Your task to perform on an android device: Open eBay Image 0: 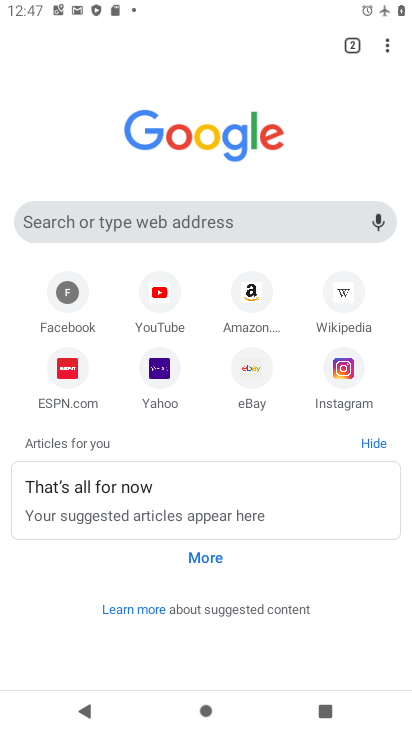
Step 0: press home button
Your task to perform on an android device: Open eBay Image 1: 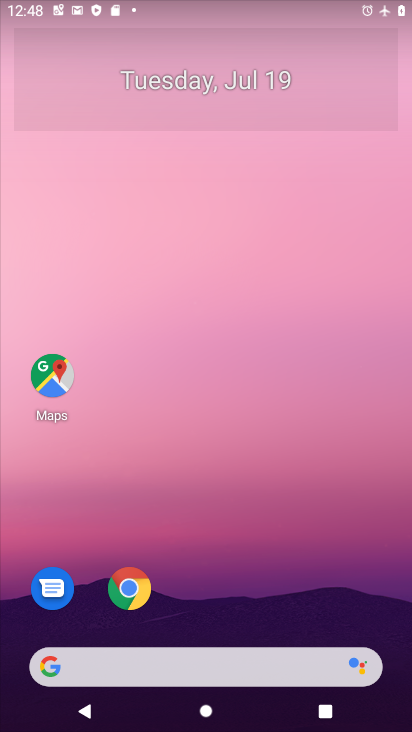
Step 1: drag from (313, 607) to (275, 16)
Your task to perform on an android device: Open eBay Image 2: 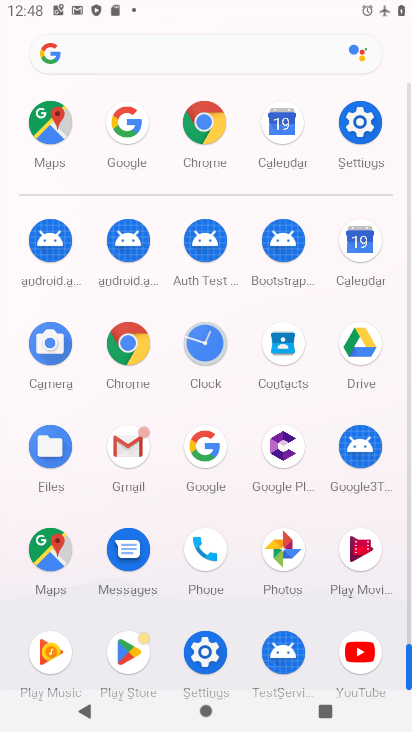
Step 2: click (203, 466)
Your task to perform on an android device: Open eBay Image 3: 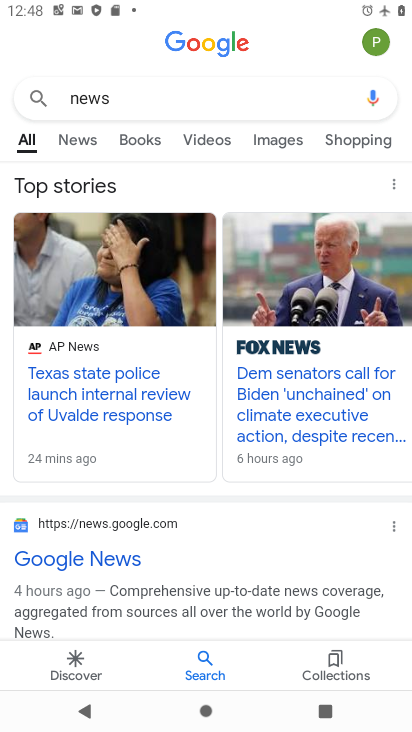
Step 3: press back button
Your task to perform on an android device: Open eBay Image 4: 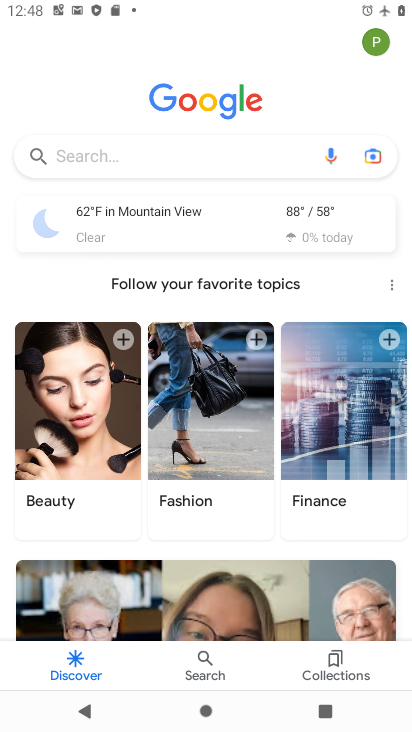
Step 4: click (112, 149)
Your task to perform on an android device: Open eBay Image 5: 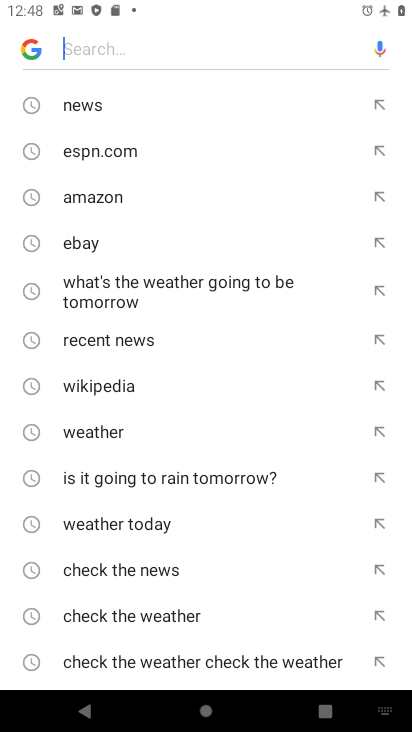
Step 5: drag from (181, 600) to (195, 193)
Your task to perform on an android device: Open eBay Image 6: 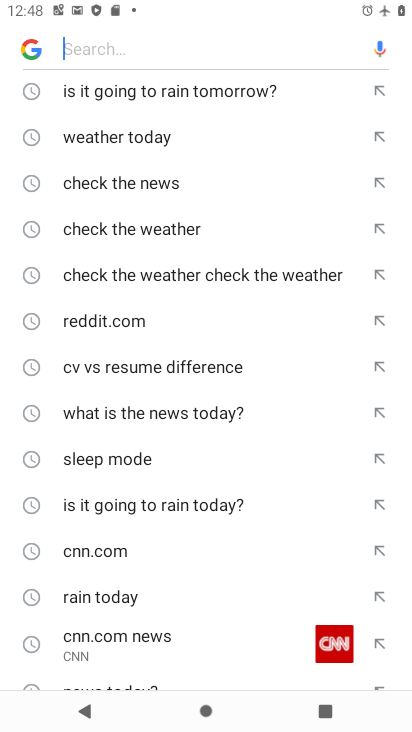
Step 6: drag from (152, 117) to (189, 656)
Your task to perform on an android device: Open eBay Image 7: 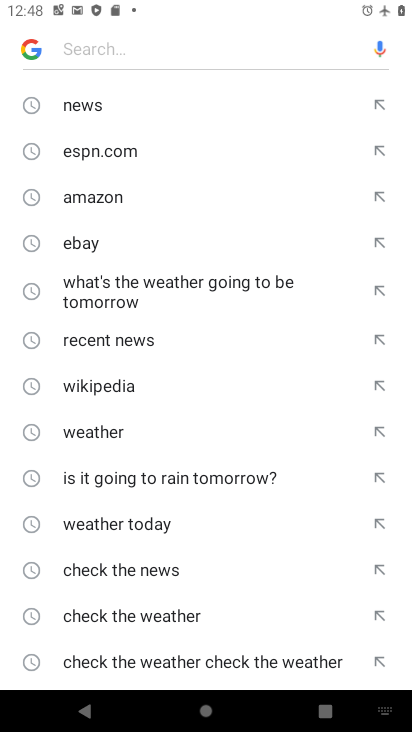
Step 7: click (86, 252)
Your task to perform on an android device: Open eBay Image 8: 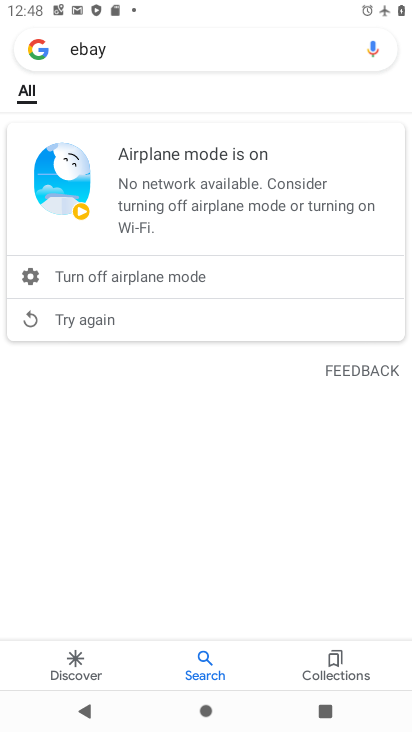
Step 8: task complete